Your task to perform on an android device: Open sound settings Image 0: 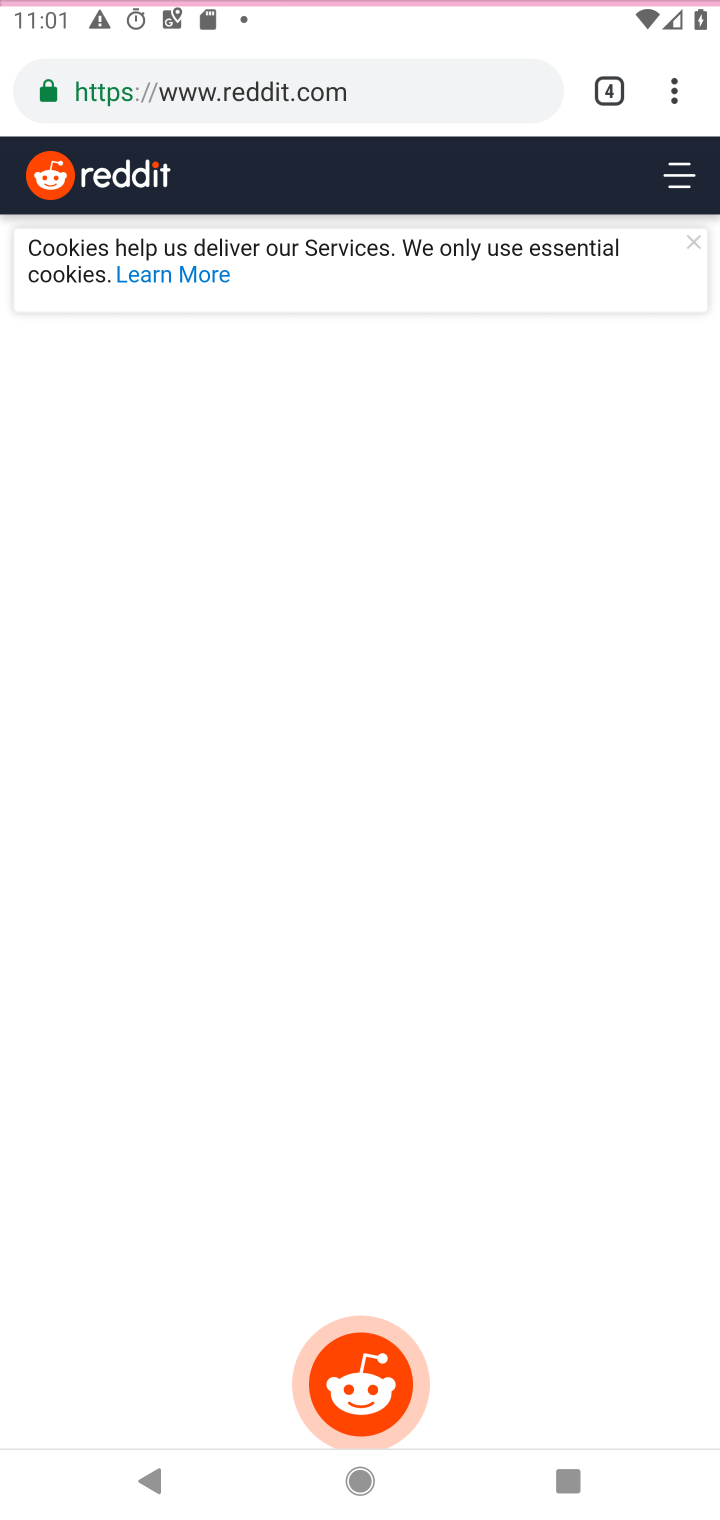
Step 0: press home button
Your task to perform on an android device: Open sound settings Image 1: 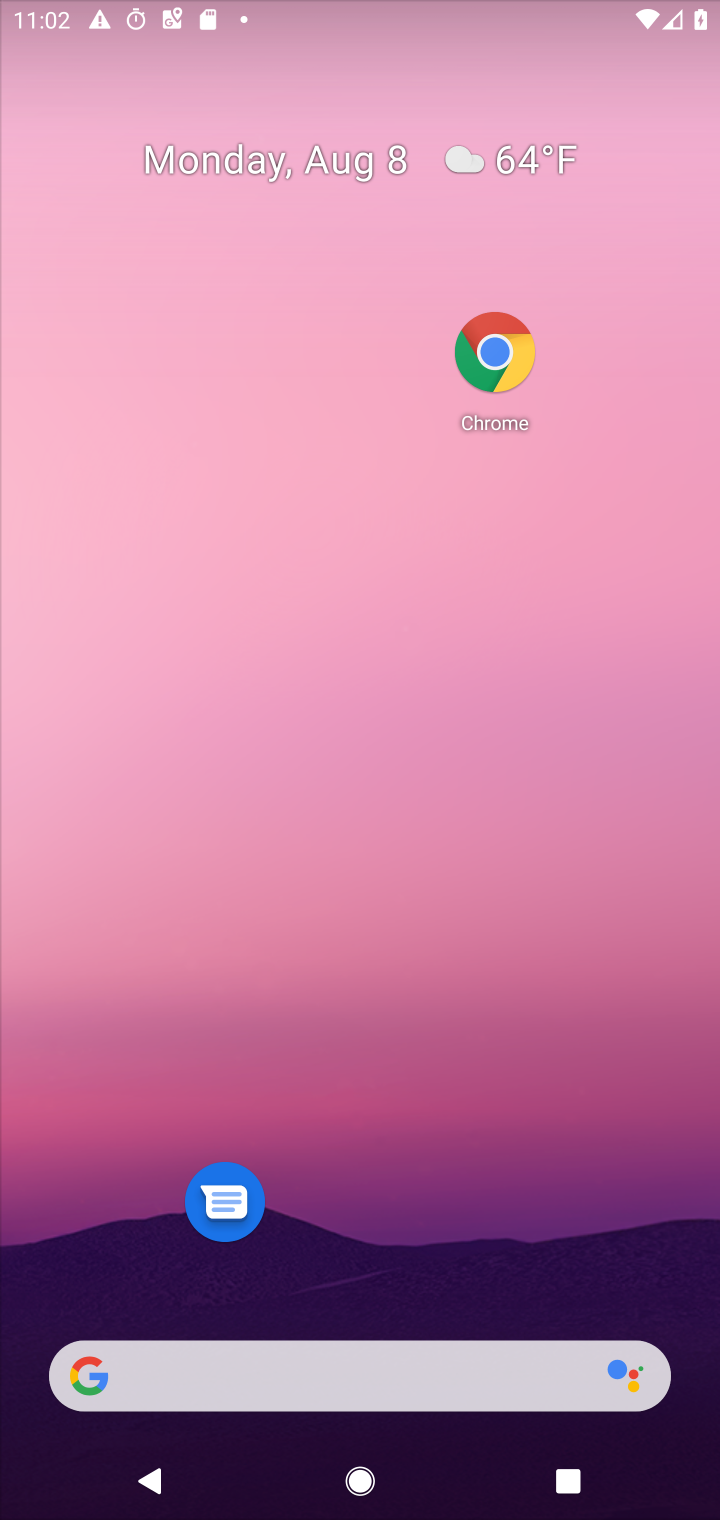
Step 1: press home button
Your task to perform on an android device: Open sound settings Image 2: 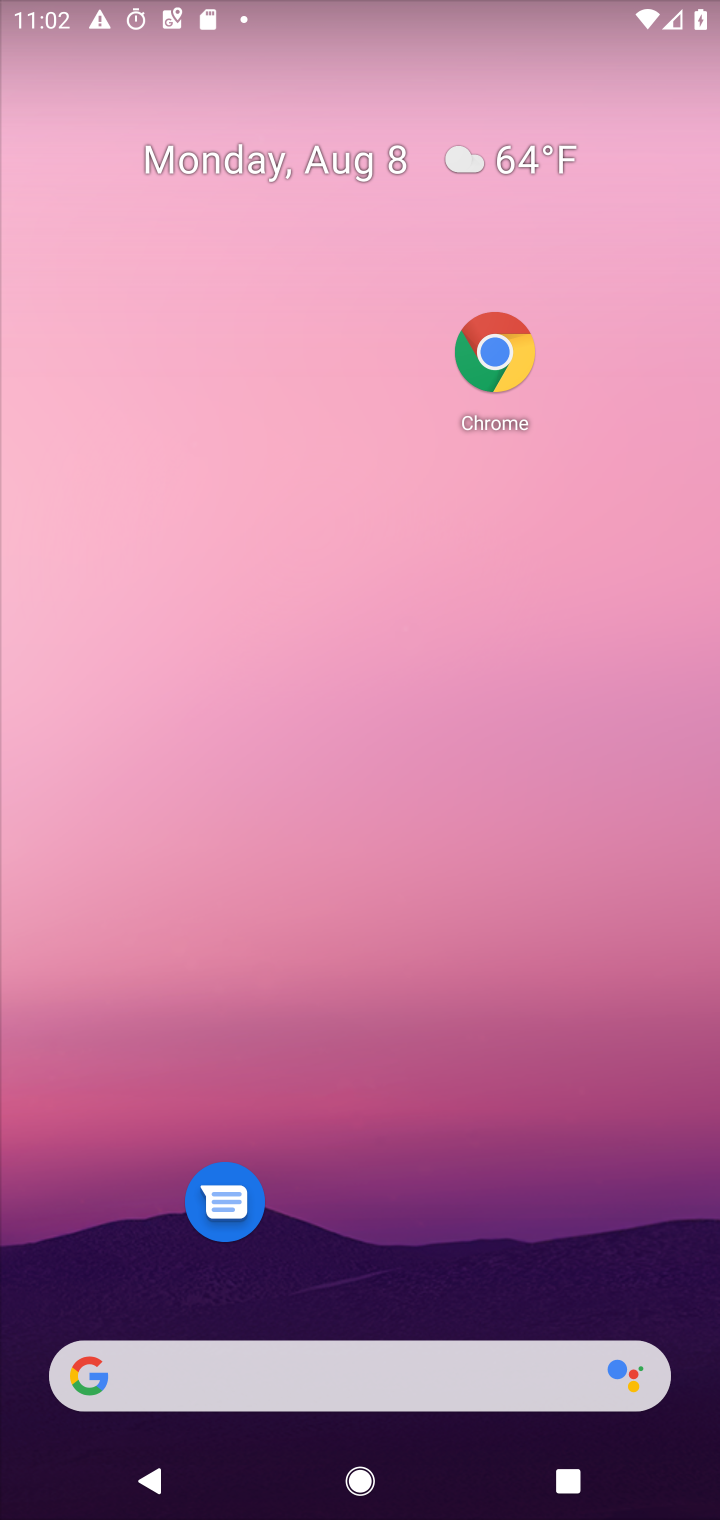
Step 2: drag from (496, 1077) to (524, 543)
Your task to perform on an android device: Open sound settings Image 3: 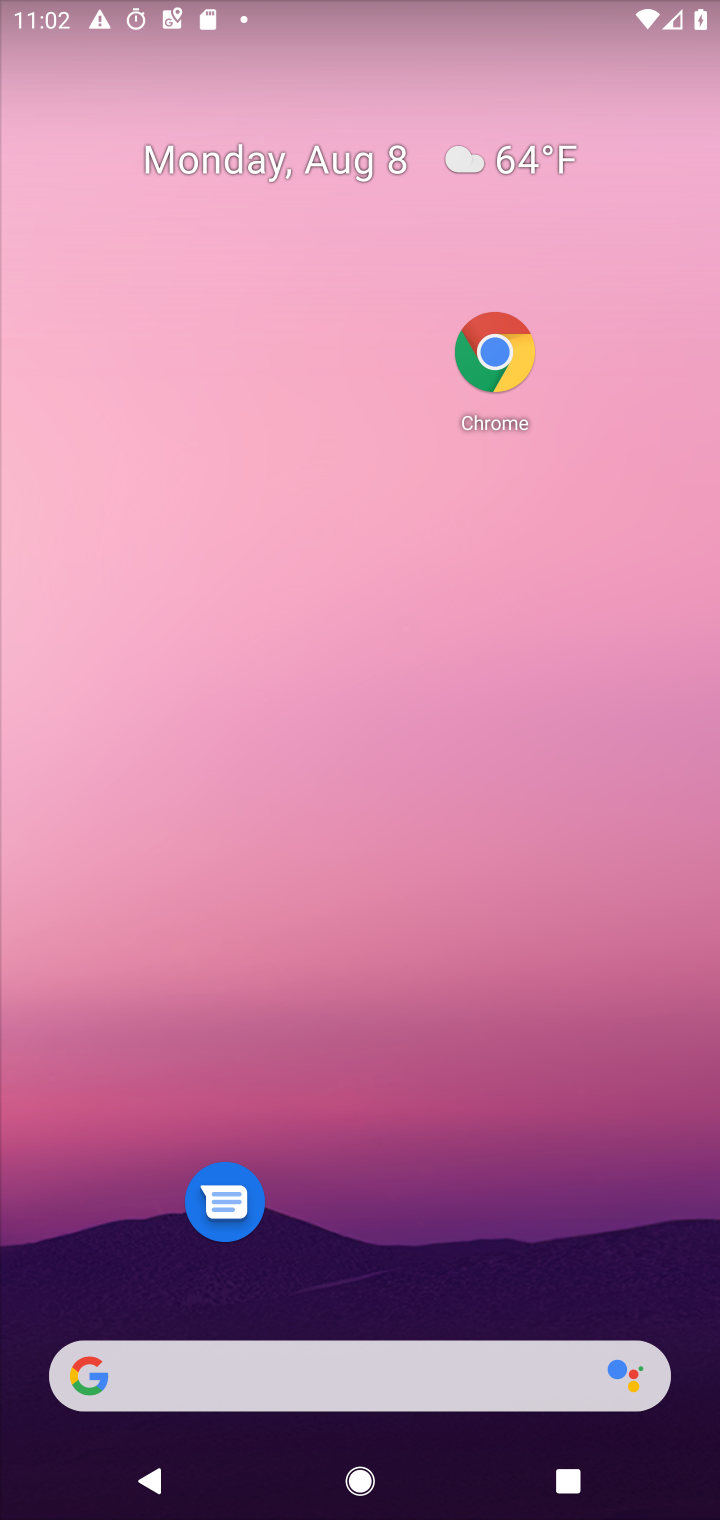
Step 3: drag from (356, 1279) to (283, 195)
Your task to perform on an android device: Open sound settings Image 4: 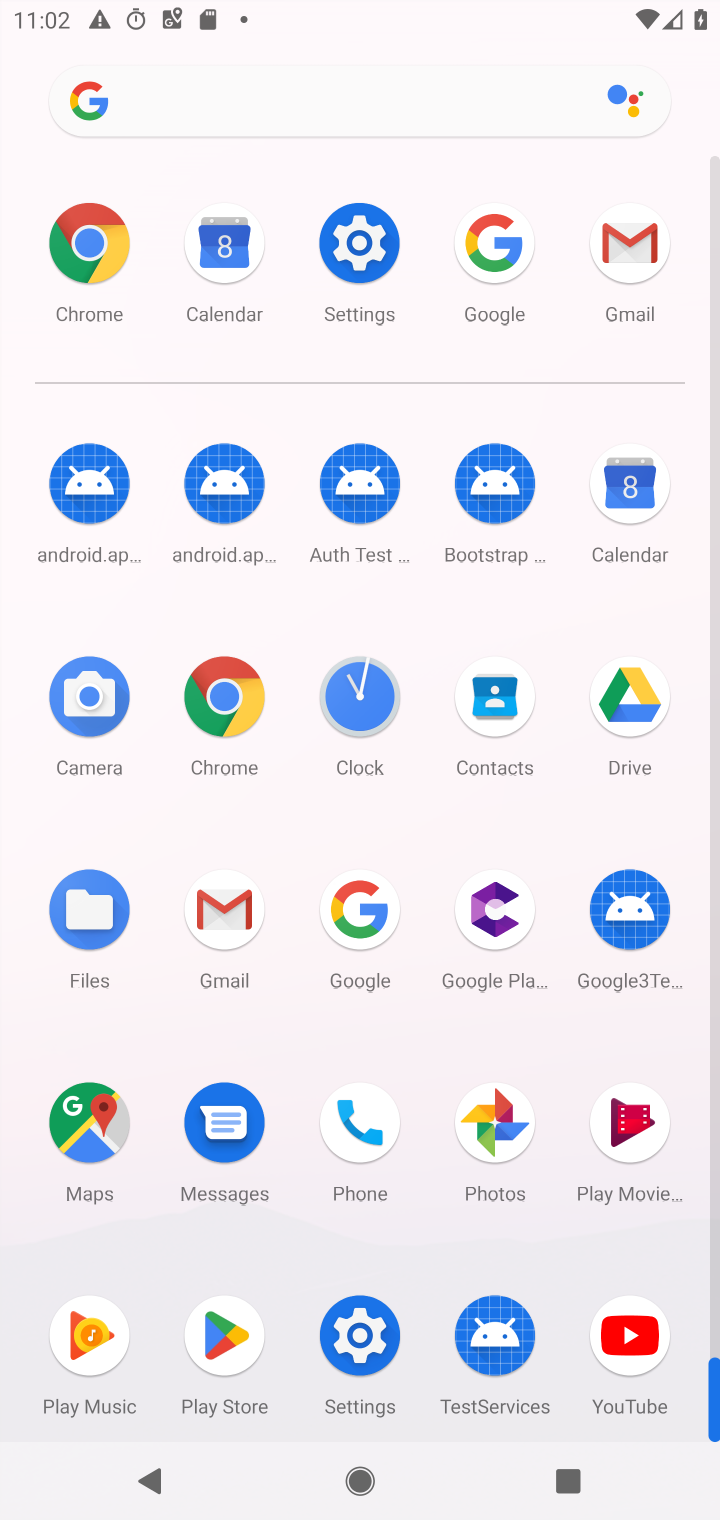
Step 4: click (361, 279)
Your task to perform on an android device: Open sound settings Image 5: 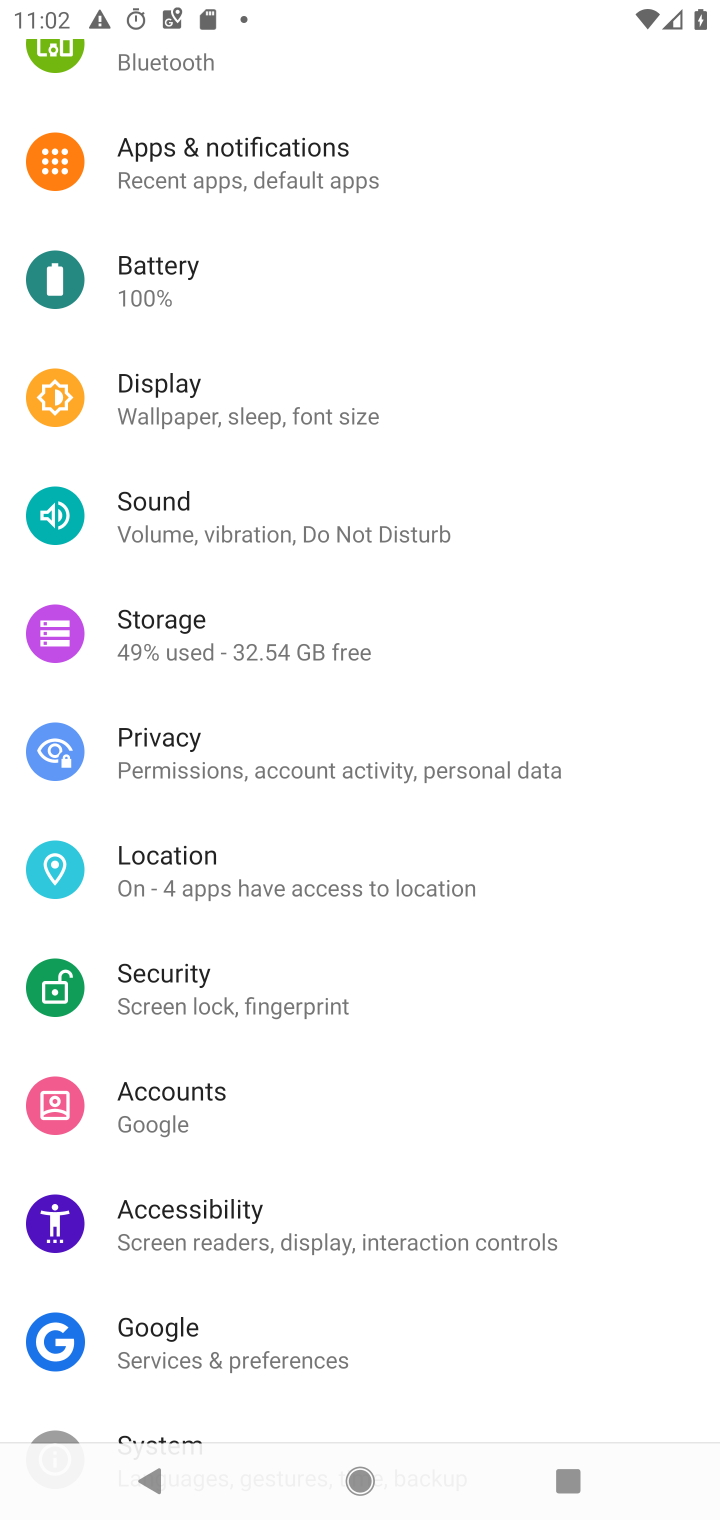
Step 5: drag from (361, 279) to (364, 489)
Your task to perform on an android device: Open sound settings Image 6: 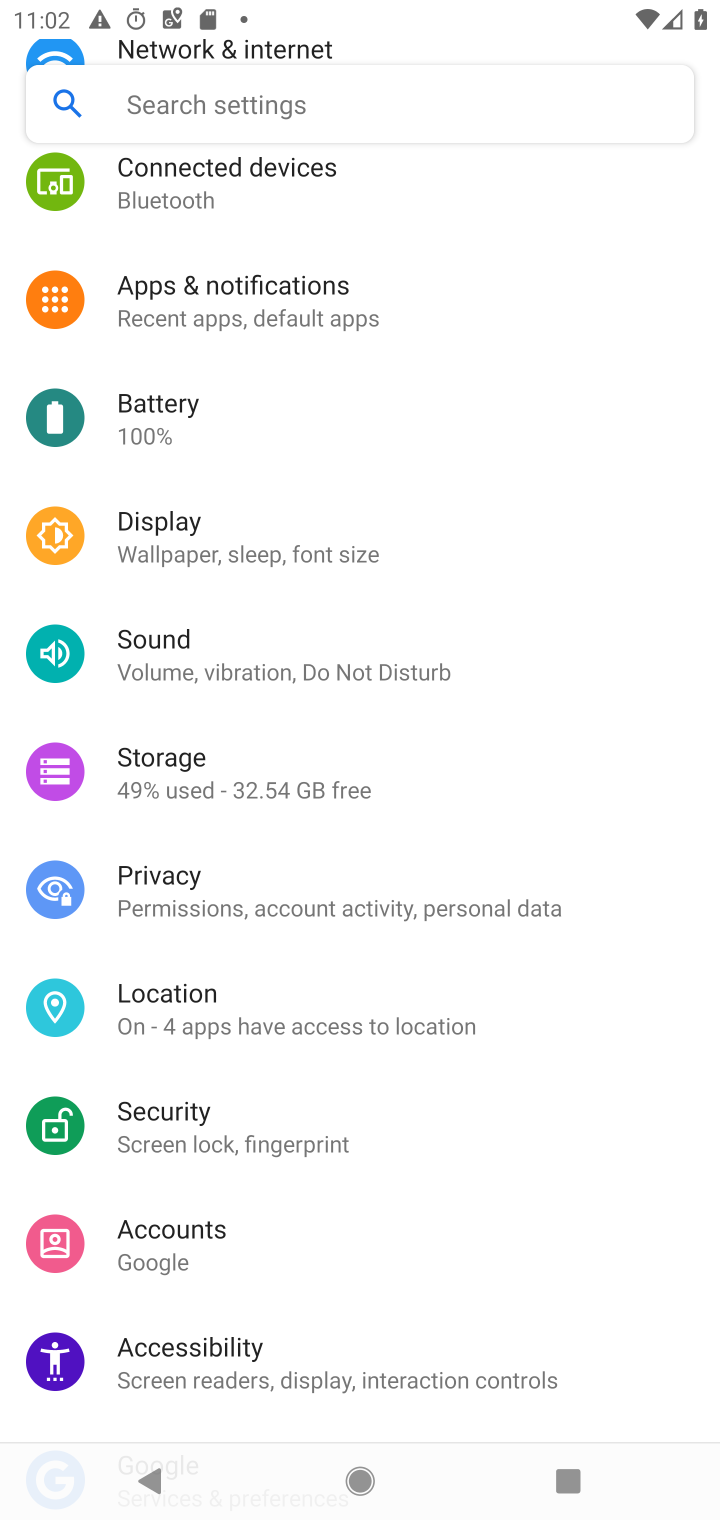
Step 6: drag from (398, 295) to (482, 584)
Your task to perform on an android device: Open sound settings Image 7: 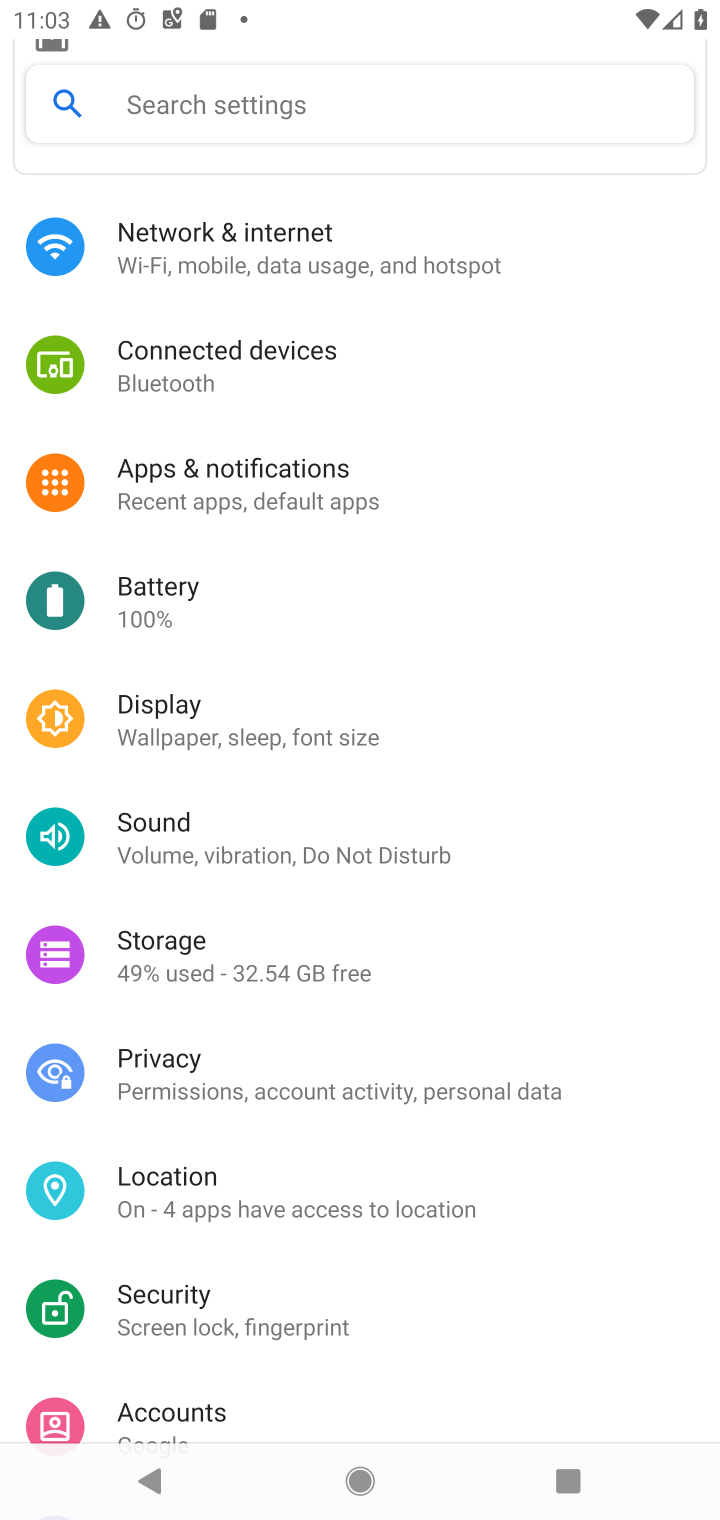
Step 7: click (290, 838)
Your task to perform on an android device: Open sound settings Image 8: 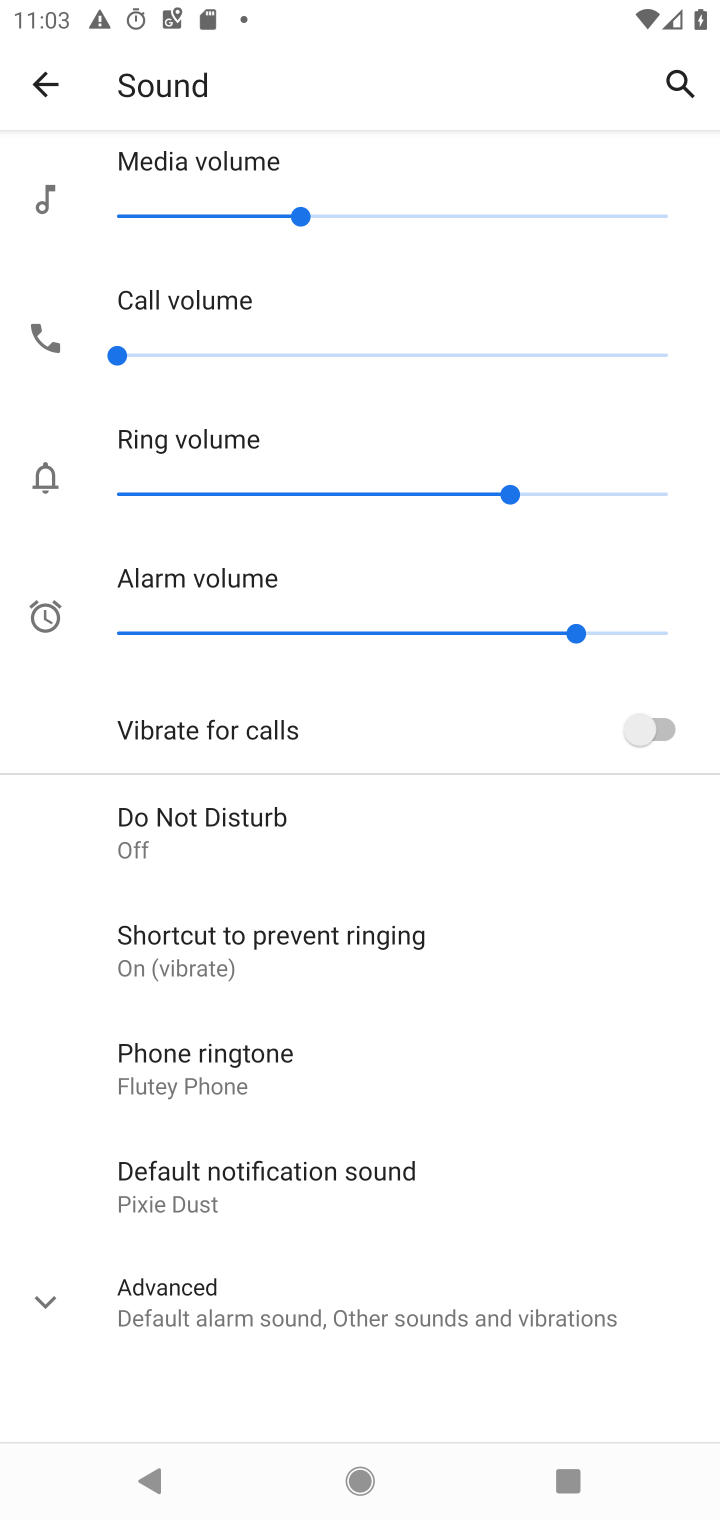
Step 8: task complete